Your task to perform on an android device: Open Yahoo.com Image 0: 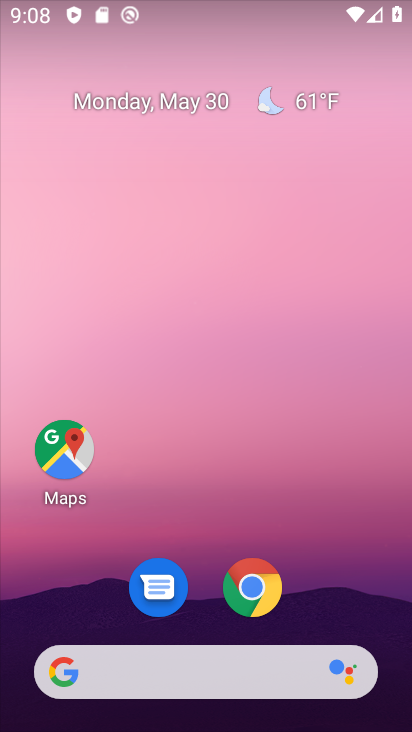
Step 0: click (258, 589)
Your task to perform on an android device: Open Yahoo.com Image 1: 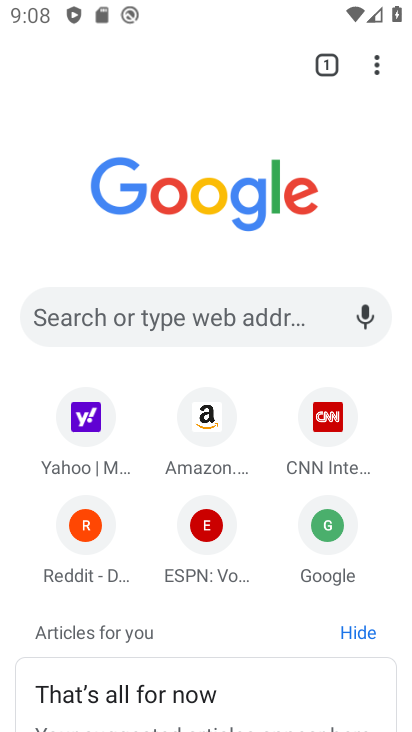
Step 1: click (65, 424)
Your task to perform on an android device: Open Yahoo.com Image 2: 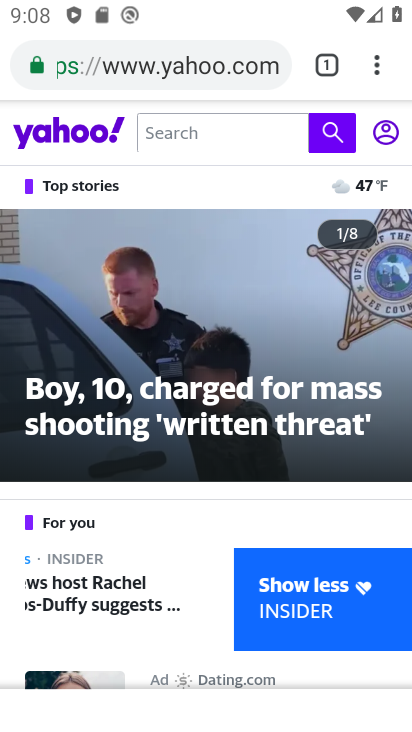
Step 2: task complete